Your task to perform on an android device: toggle wifi Image 0: 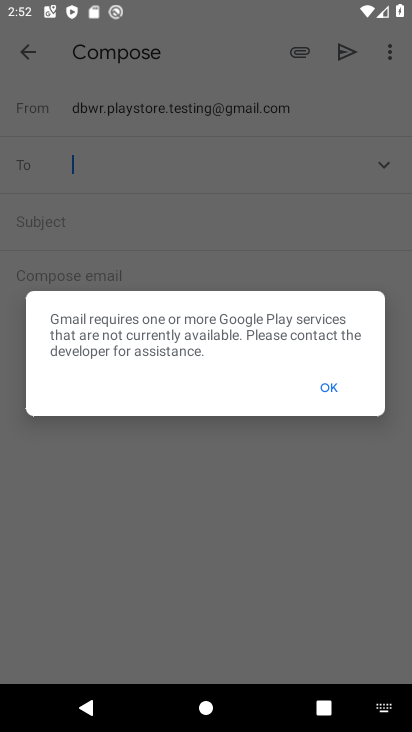
Step 0: press home button
Your task to perform on an android device: toggle wifi Image 1: 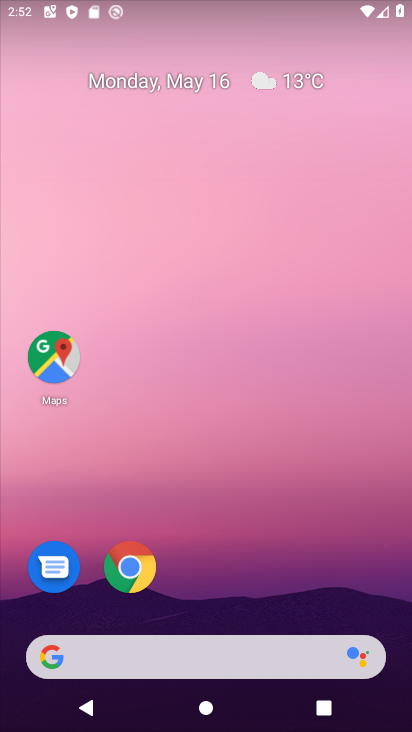
Step 1: drag from (325, 579) to (239, 135)
Your task to perform on an android device: toggle wifi Image 2: 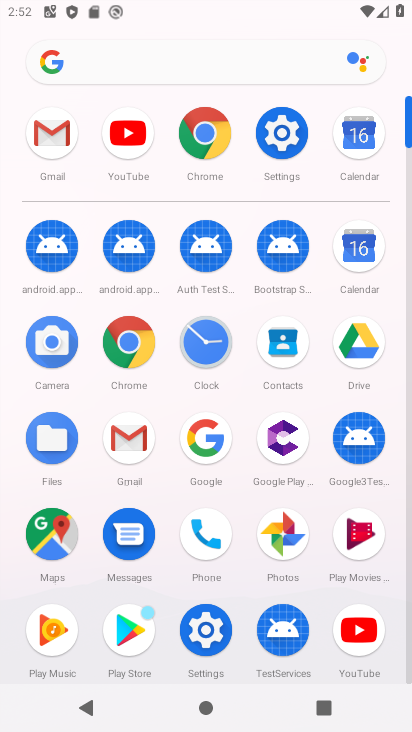
Step 2: click (283, 125)
Your task to perform on an android device: toggle wifi Image 3: 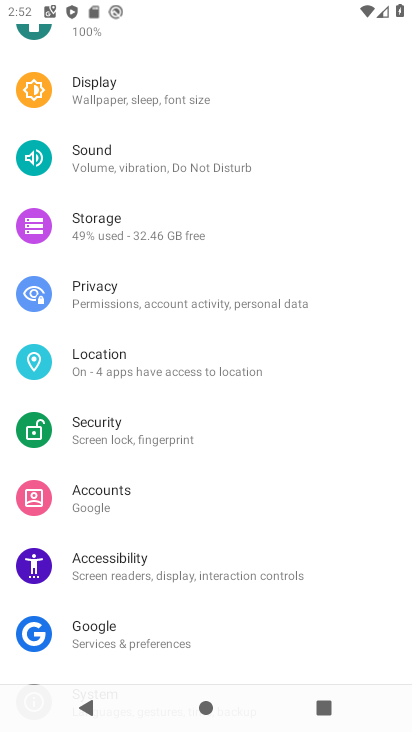
Step 3: drag from (201, 180) to (228, 636)
Your task to perform on an android device: toggle wifi Image 4: 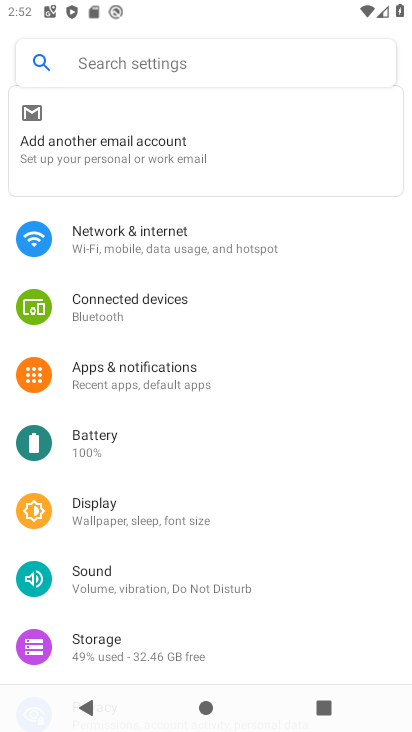
Step 4: click (186, 239)
Your task to perform on an android device: toggle wifi Image 5: 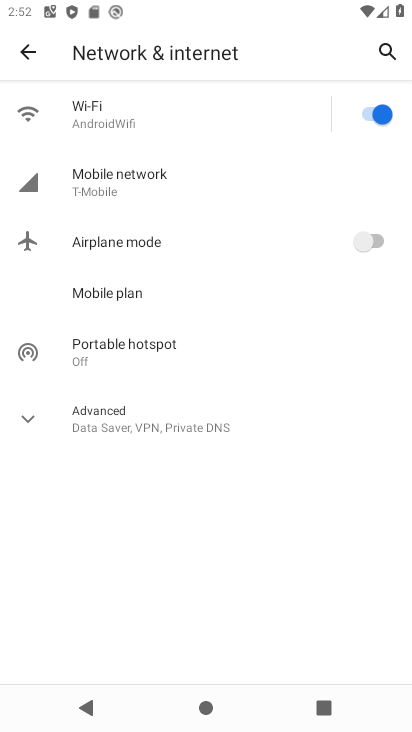
Step 5: click (169, 114)
Your task to perform on an android device: toggle wifi Image 6: 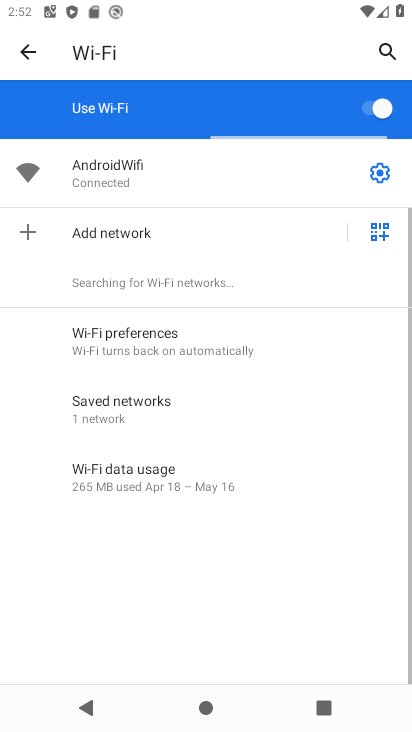
Step 6: click (371, 95)
Your task to perform on an android device: toggle wifi Image 7: 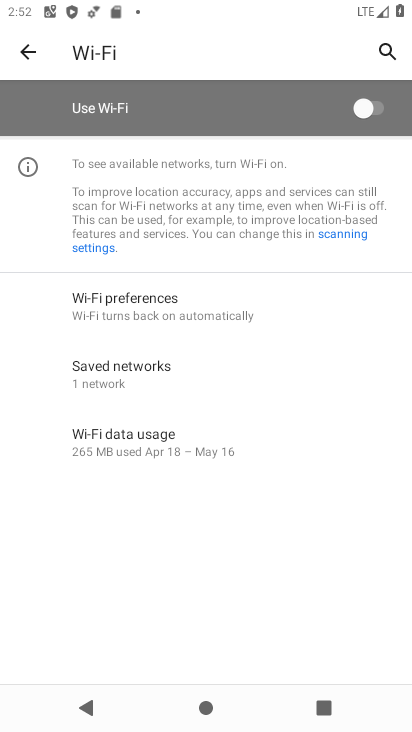
Step 7: task complete